Your task to perform on an android device: toggle wifi Image 0: 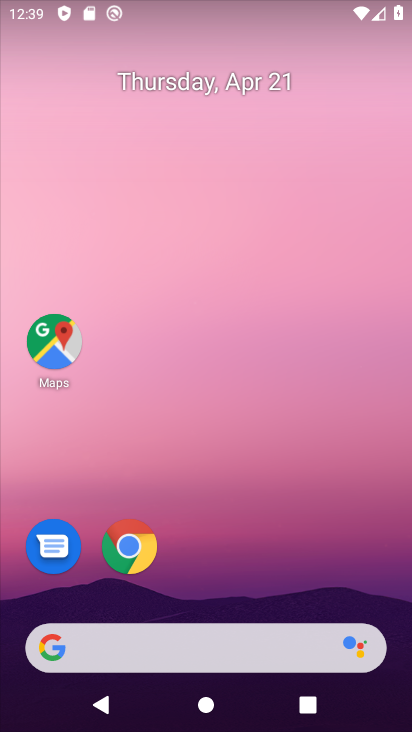
Step 0: drag from (247, 539) to (351, 121)
Your task to perform on an android device: toggle wifi Image 1: 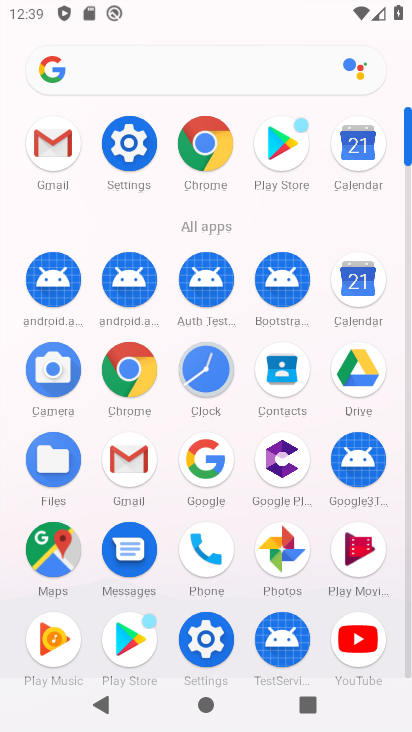
Step 1: click (133, 140)
Your task to perform on an android device: toggle wifi Image 2: 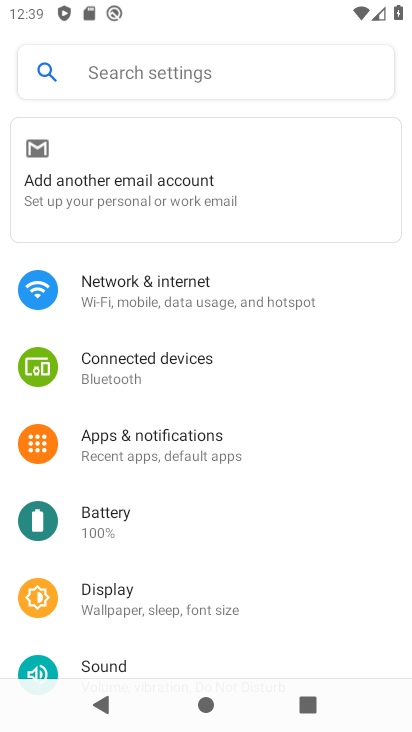
Step 2: click (138, 303)
Your task to perform on an android device: toggle wifi Image 3: 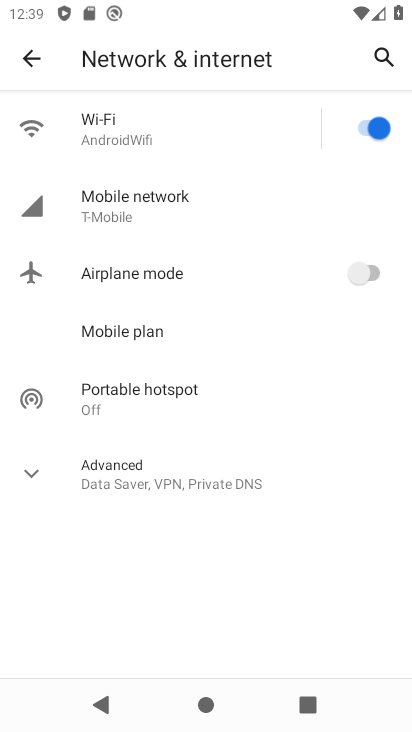
Step 3: click (374, 137)
Your task to perform on an android device: toggle wifi Image 4: 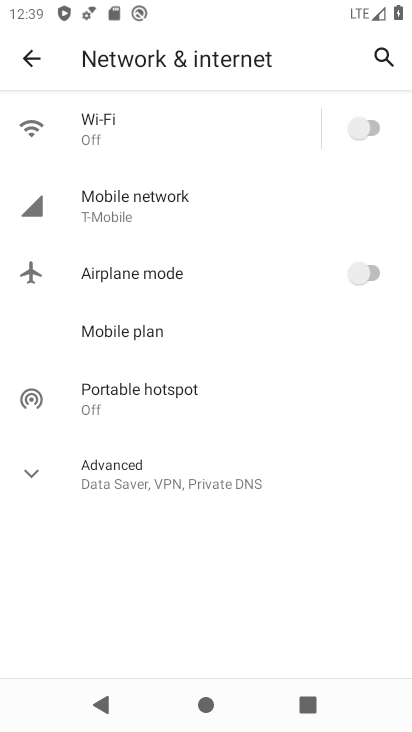
Step 4: task complete